Your task to perform on an android device: Clear the cart on costco. Add "bose soundlink" to the cart on costco Image 0: 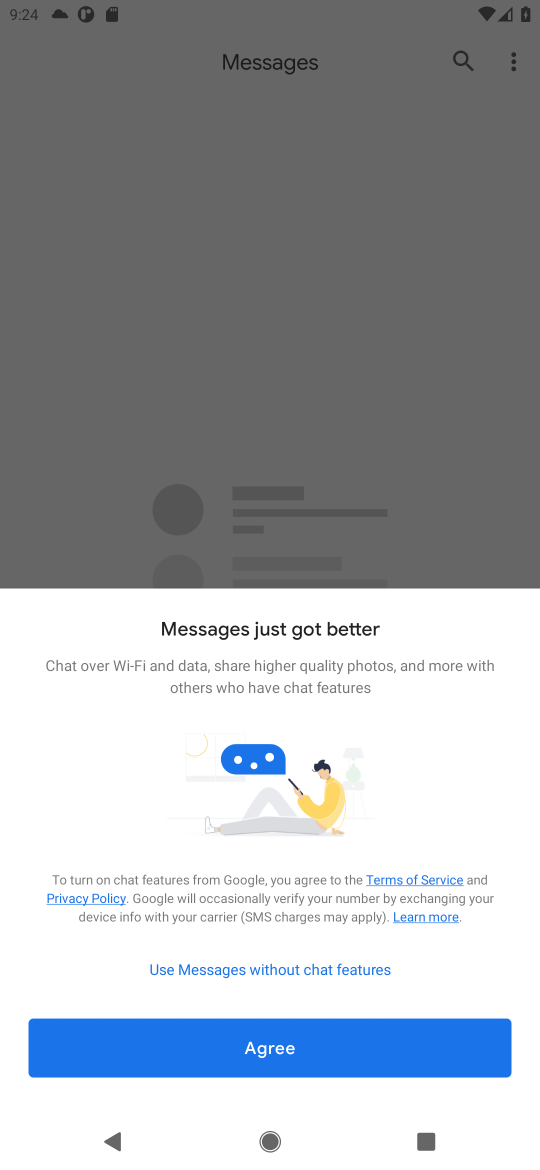
Step 0: press home button
Your task to perform on an android device: Clear the cart on costco. Add "bose soundlink" to the cart on costco Image 1: 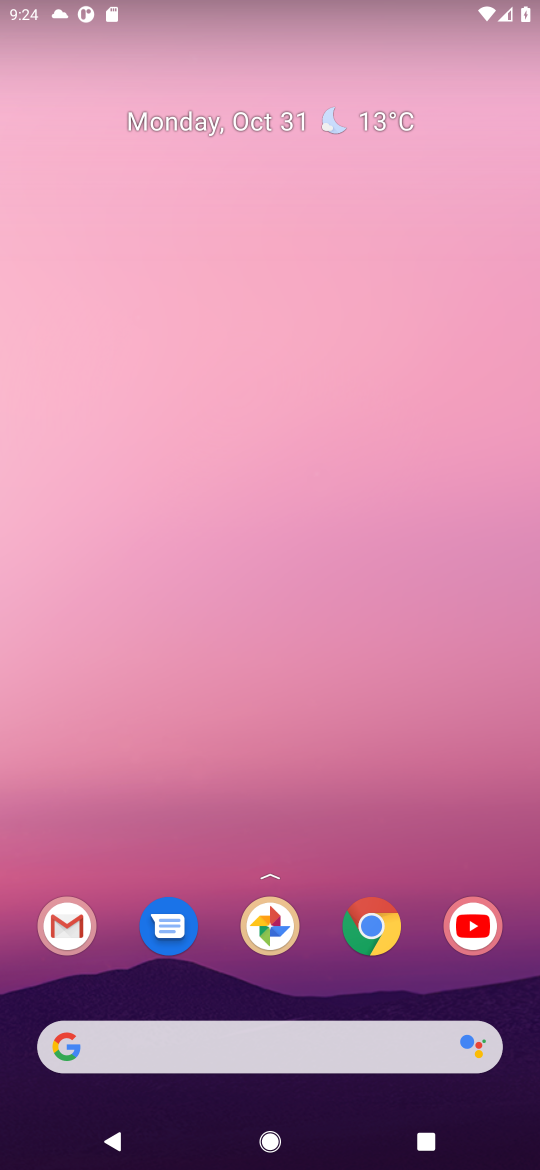
Step 1: click (368, 924)
Your task to perform on an android device: Clear the cart on costco. Add "bose soundlink" to the cart on costco Image 2: 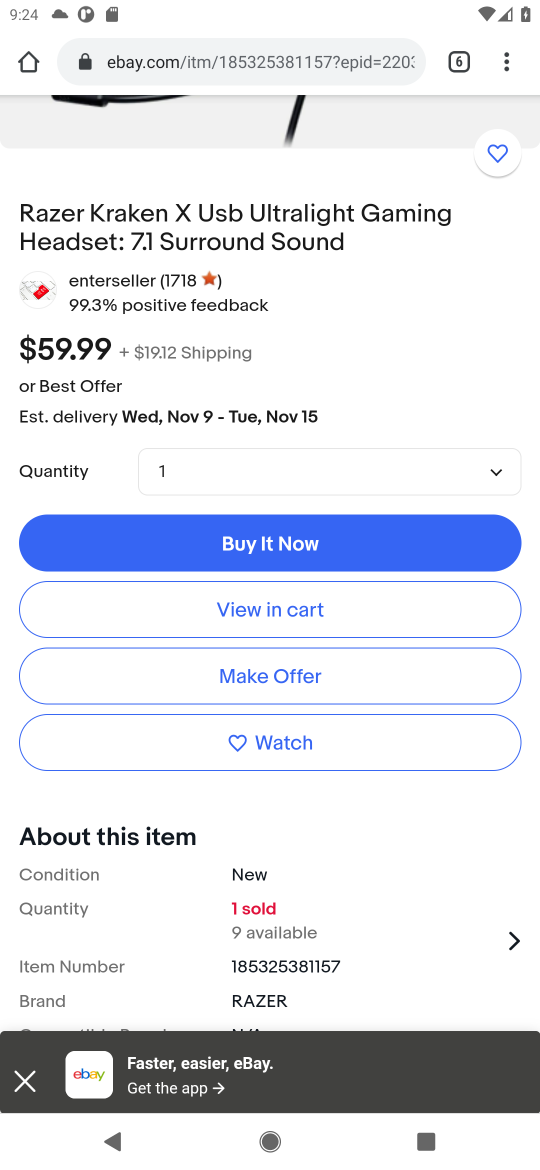
Step 2: click (458, 66)
Your task to perform on an android device: Clear the cart on costco. Add "bose soundlink" to the cart on costco Image 3: 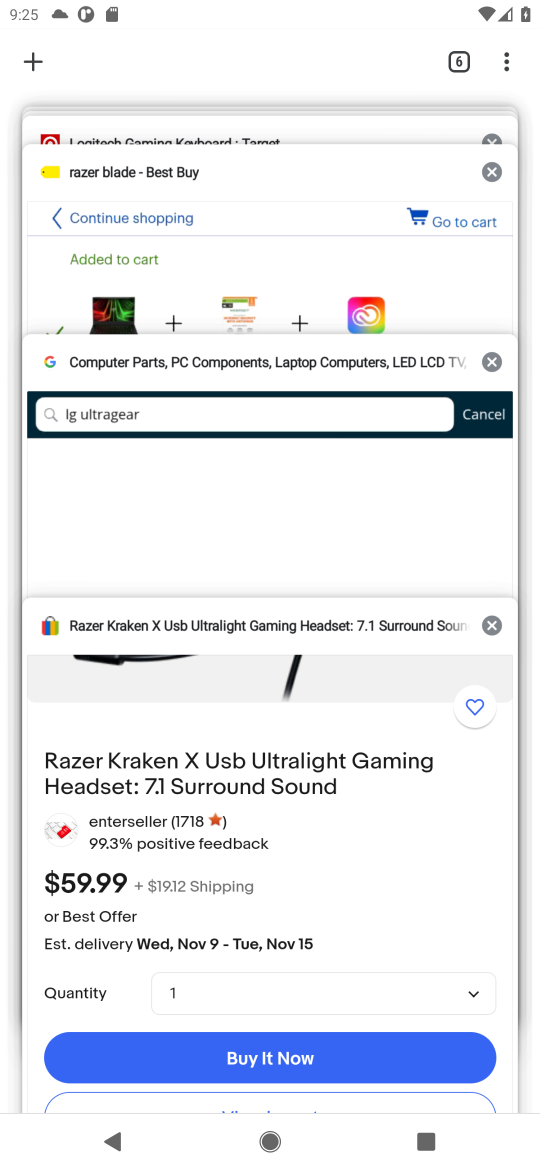
Step 3: drag from (242, 134) to (213, 626)
Your task to perform on an android device: Clear the cart on costco. Add "bose soundlink" to the cart on costco Image 4: 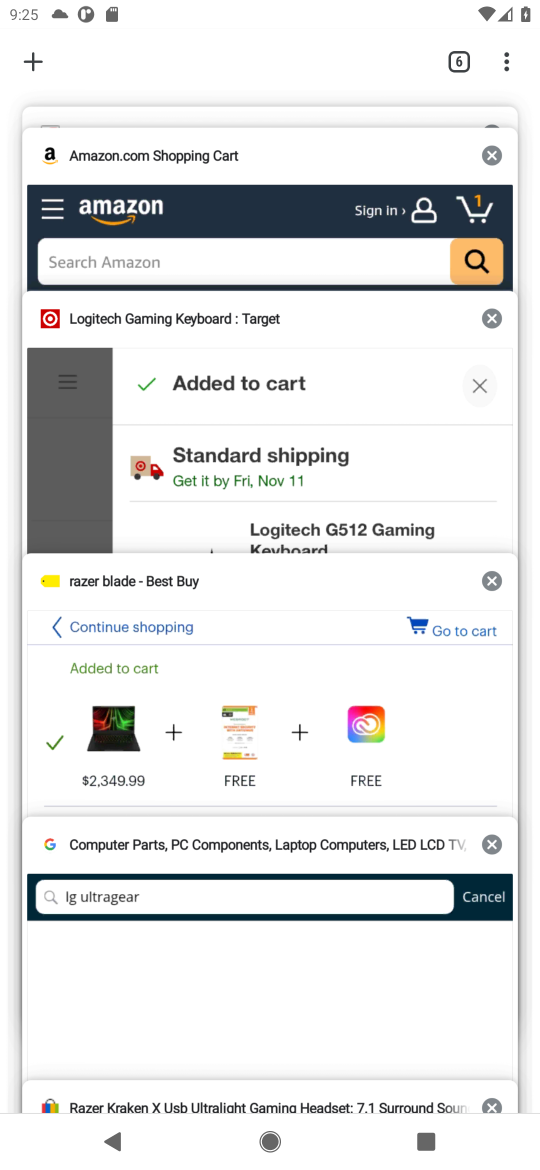
Step 4: drag from (278, 213) to (241, 584)
Your task to perform on an android device: Clear the cart on costco. Add "bose soundlink" to the cart on costco Image 5: 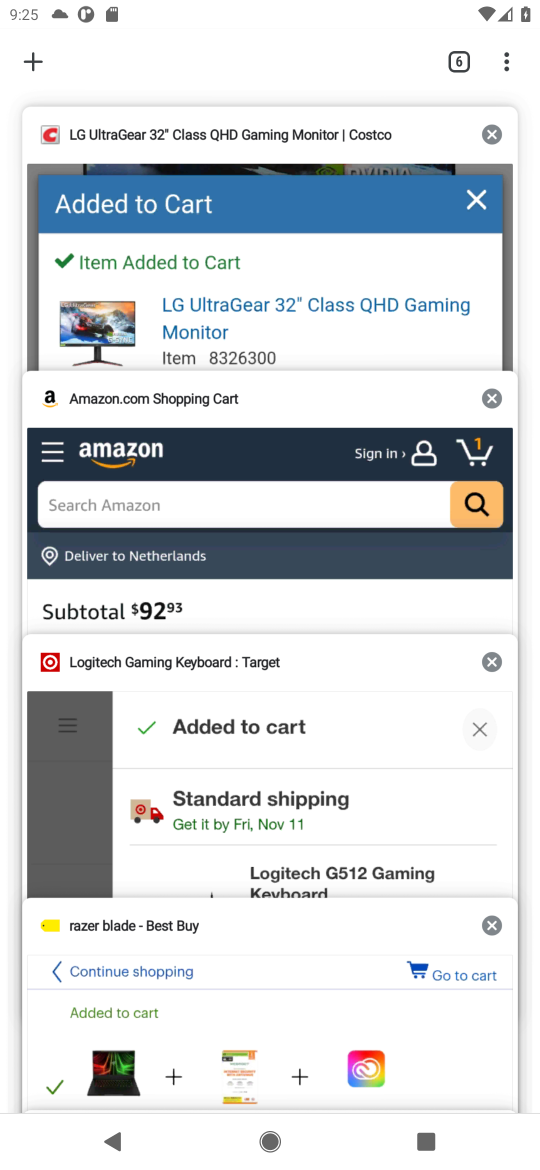
Step 5: click (290, 135)
Your task to perform on an android device: Clear the cart on costco. Add "bose soundlink" to the cart on costco Image 6: 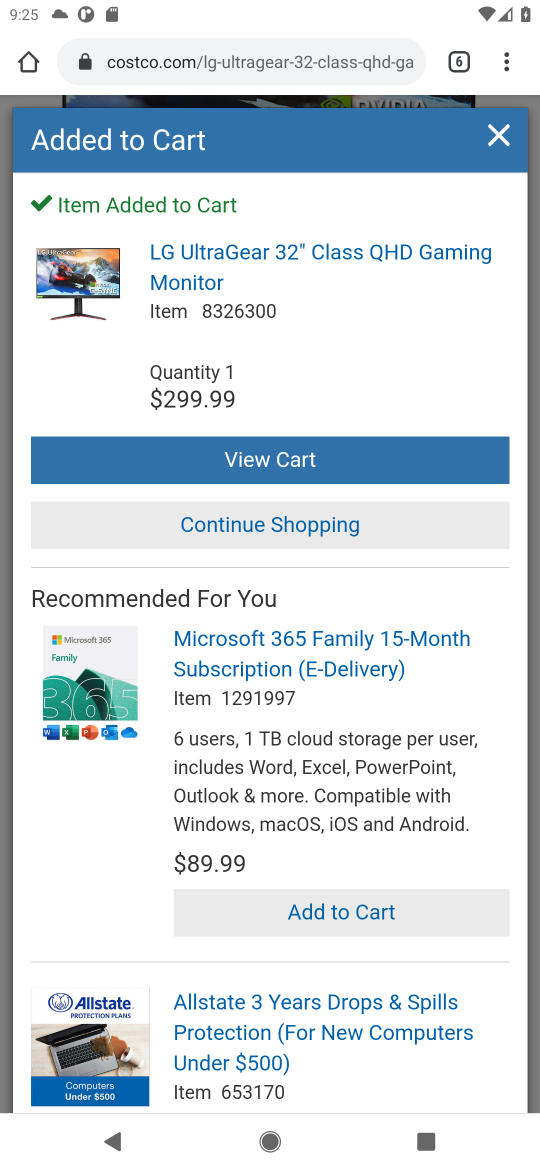
Step 6: click (506, 131)
Your task to perform on an android device: Clear the cart on costco. Add "bose soundlink" to the cart on costco Image 7: 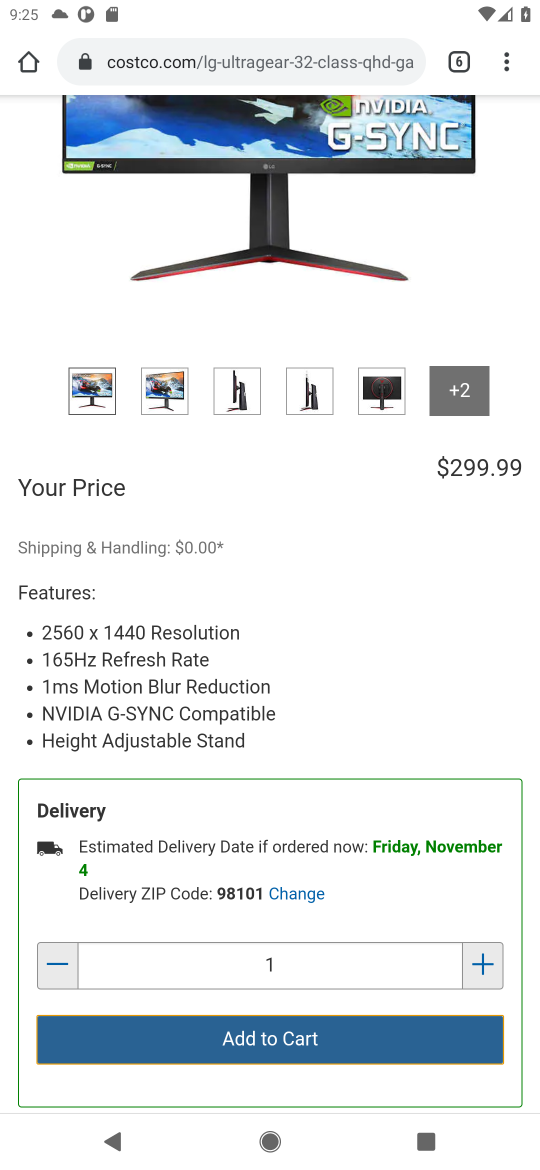
Step 7: drag from (417, 336) to (324, 1127)
Your task to perform on an android device: Clear the cart on costco. Add "bose soundlink" to the cart on costco Image 8: 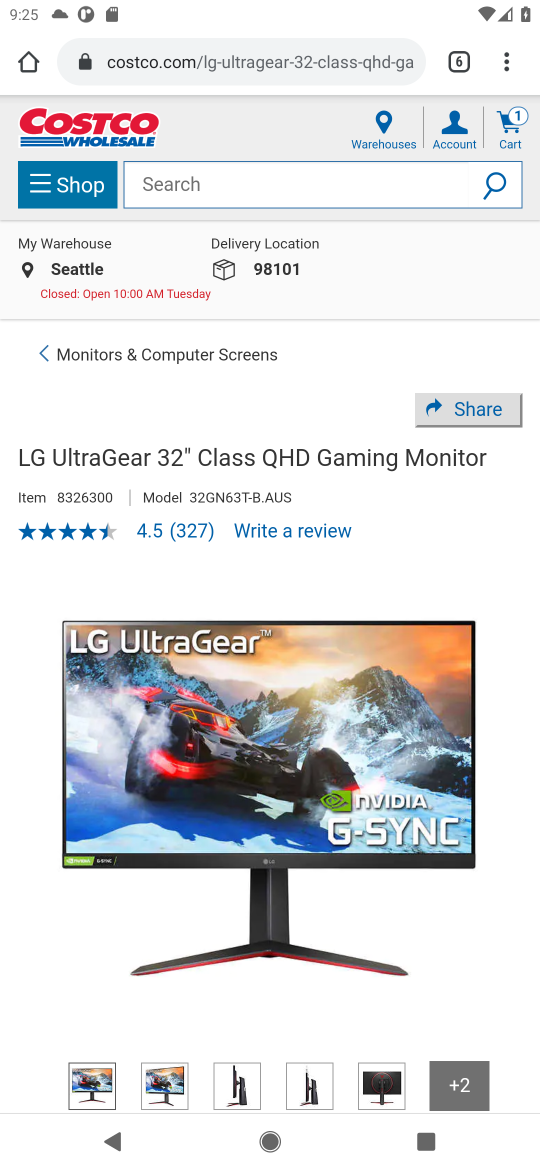
Step 8: click (512, 119)
Your task to perform on an android device: Clear the cart on costco. Add "bose soundlink" to the cart on costco Image 9: 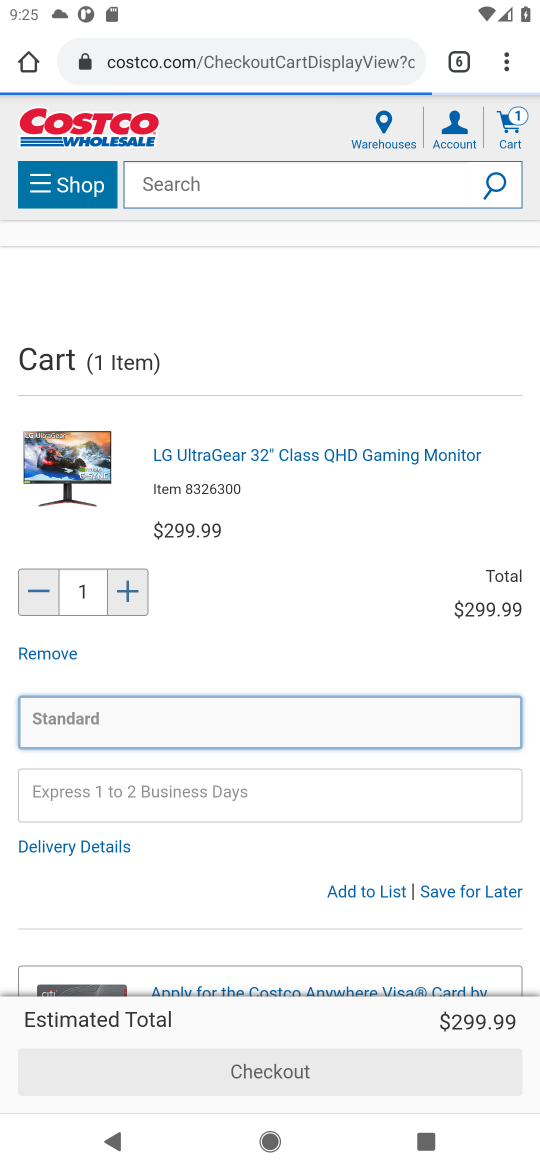
Step 9: click (363, 202)
Your task to perform on an android device: Clear the cart on costco. Add "bose soundlink" to the cart on costco Image 10: 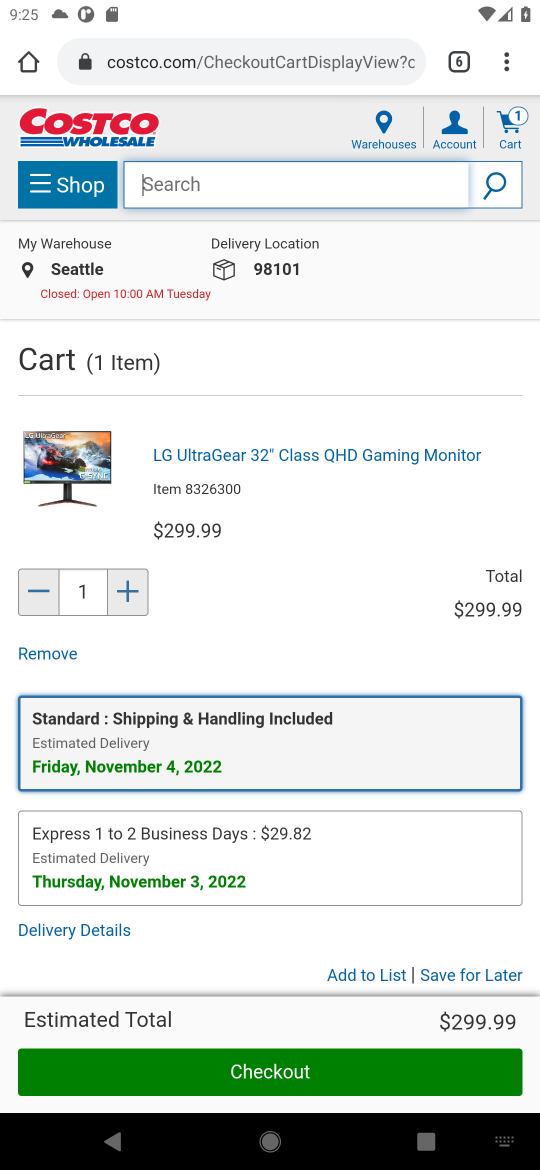
Step 10: type "bose soundlink"
Your task to perform on an android device: Clear the cart on costco. Add "bose soundlink" to the cart on costco Image 11: 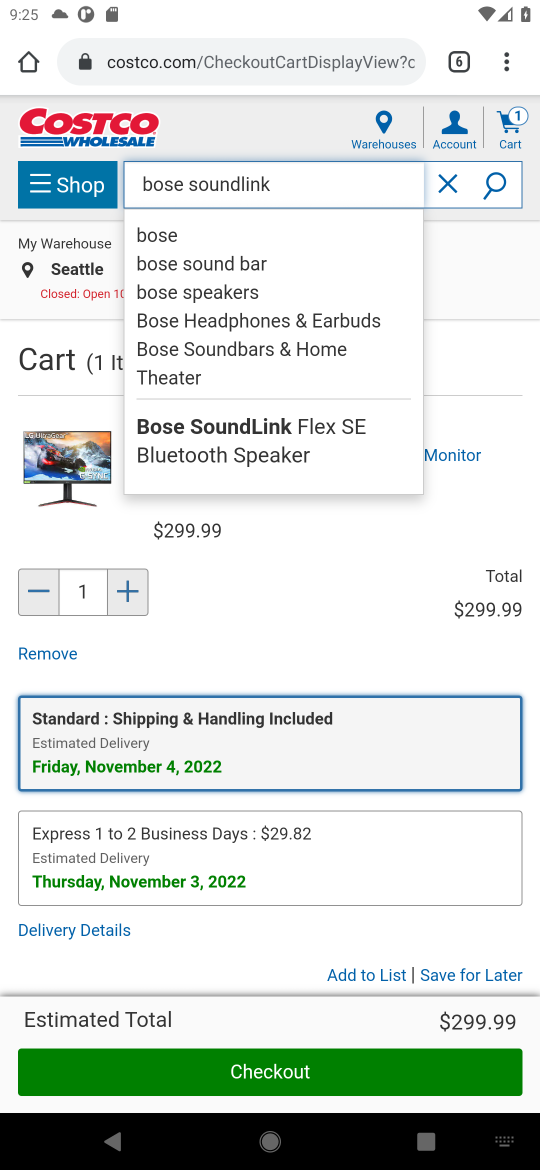
Step 11: click (270, 435)
Your task to perform on an android device: Clear the cart on costco. Add "bose soundlink" to the cart on costco Image 12: 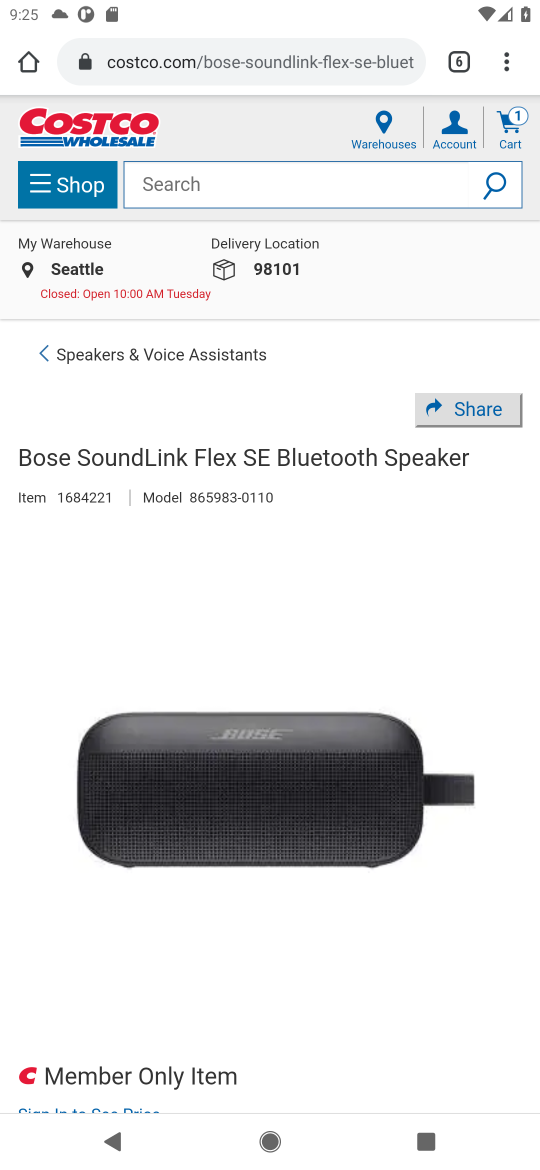
Step 12: click (510, 123)
Your task to perform on an android device: Clear the cart on costco. Add "bose soundlink" to the cart on costco Image 13: 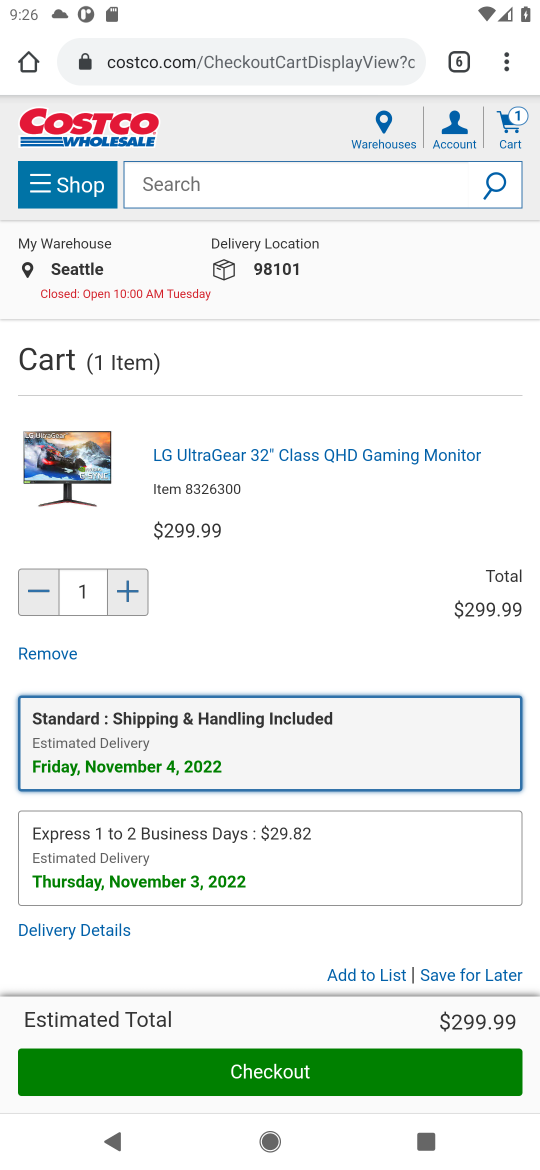
Step 13: click (58, 650)
Your task to perform on an android device: Clear the cart on costco. Add "bose soundlink" to the cart on costco Image 14: 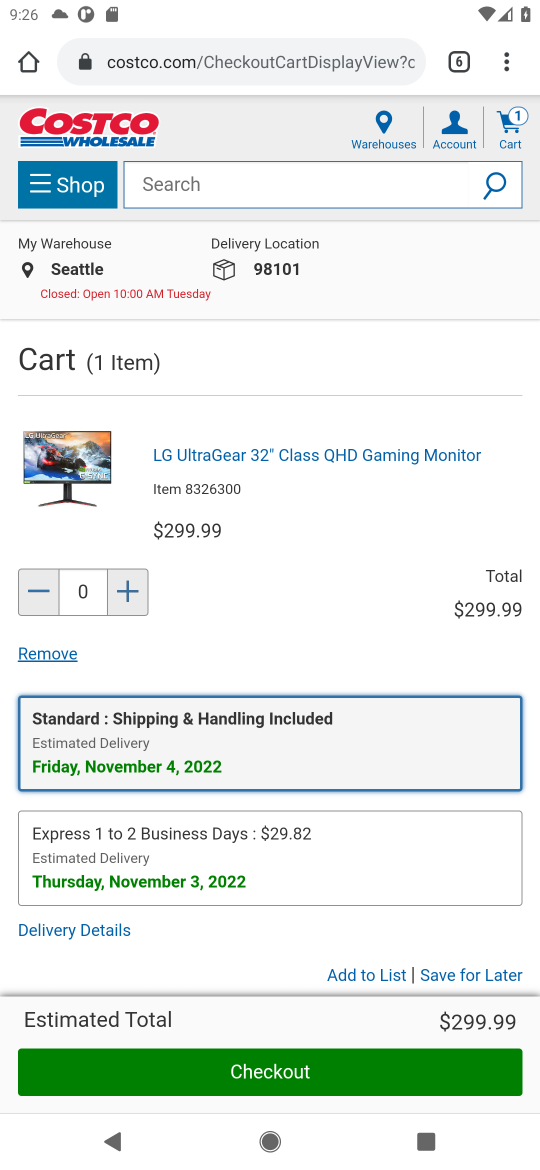
Step 14: click (48, 649)
Your task to perform on an android device: Clear the cart on costco. Add "bose soundlink" to the cart on costco Image 15: 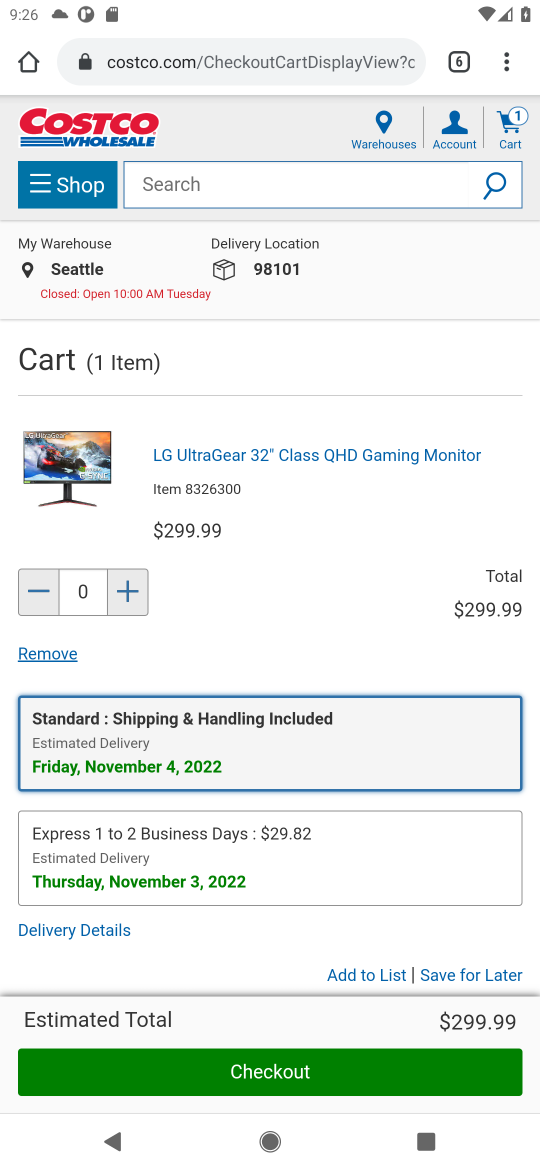
Step 15: click (48, 649)
Your task to perform on an android device: Clear the cart on costco. Add "bose soundlink" to the cart on costco Image 16: 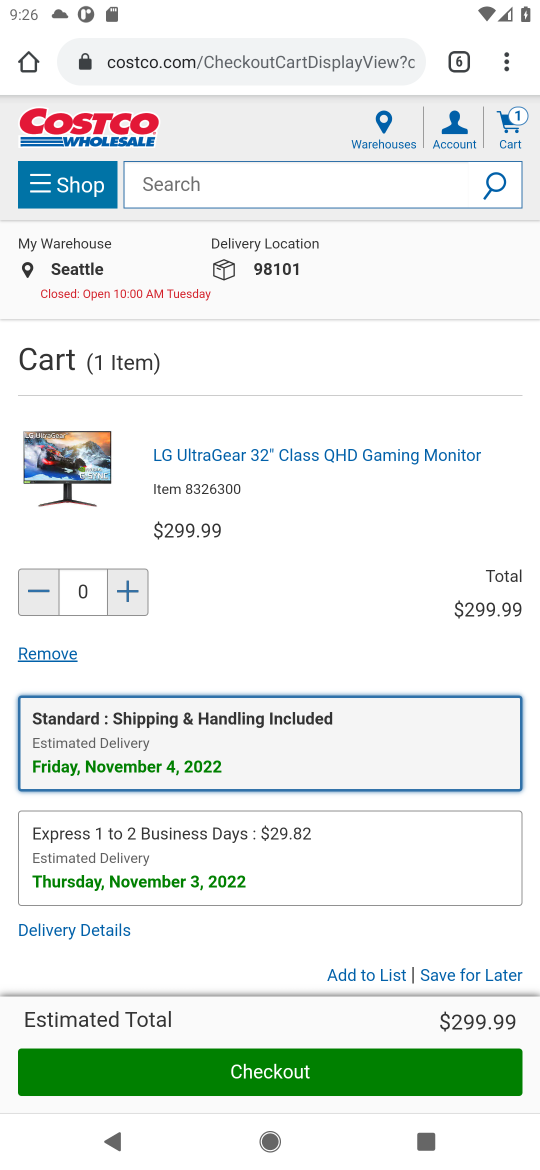
Step 16: click (48, 649)
Your task to perform on an android device: Clear the cart on costco. Add "bose soundlink" to the cart on costco Image 17: 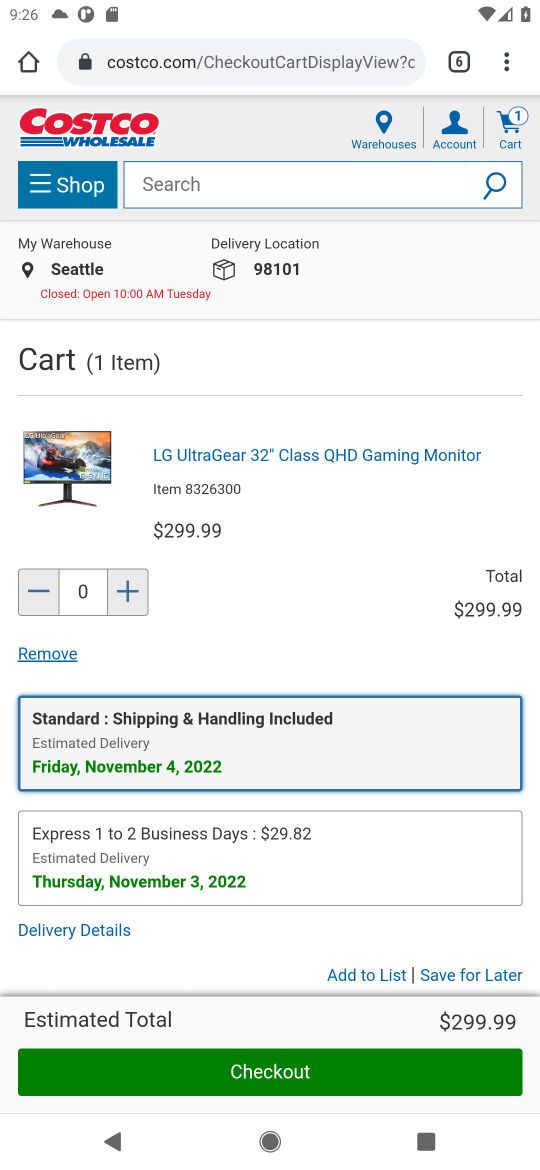
Step 17: click (48, 649)
Your task to perform on an android device: Clear the cart on costco. Add "bose soundlink" to the cart on costco Image 18: 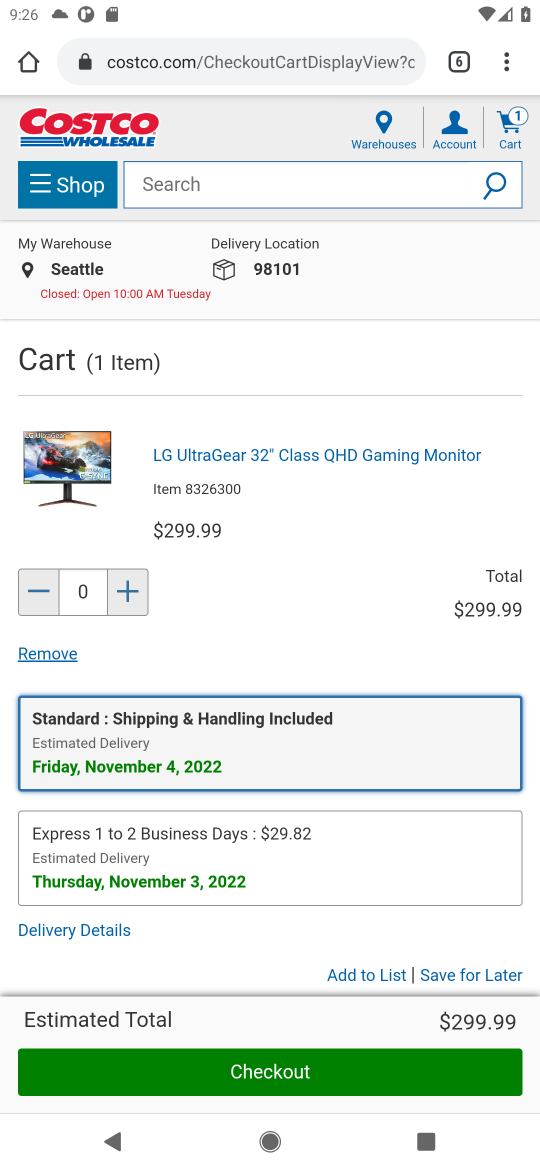
Step 18: click (48, 649)
Your task to perform on an android device: Clear the cart on costco. Add "bose soundlink" to the cart on costco Image 19: 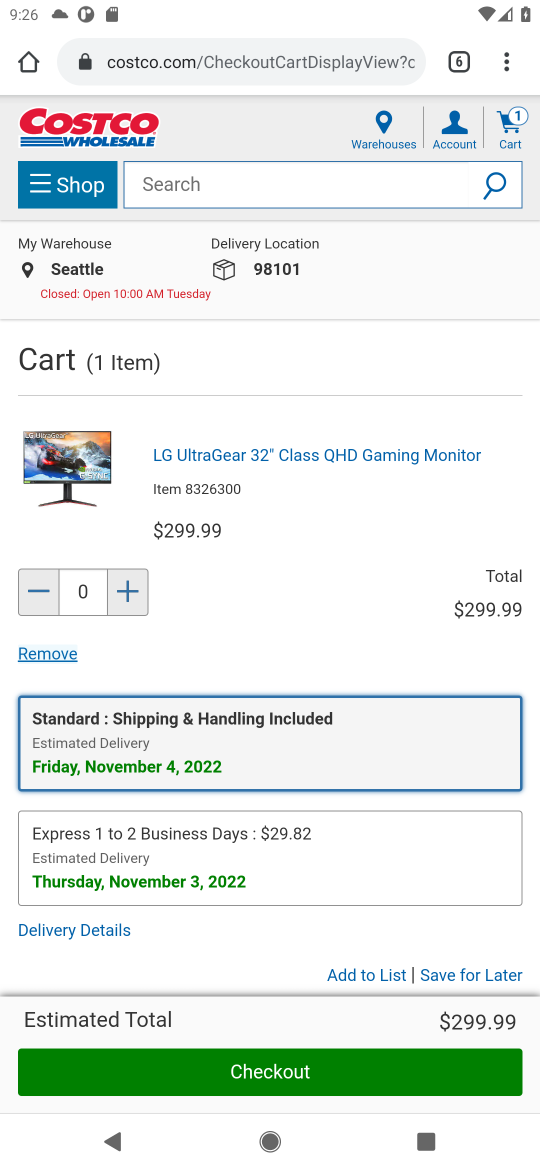
Step 19: click (48, 649)
Your task to perform on an android device: Clear the cart on costco. Add "bose soundlink" to the cart on costco Image 20: 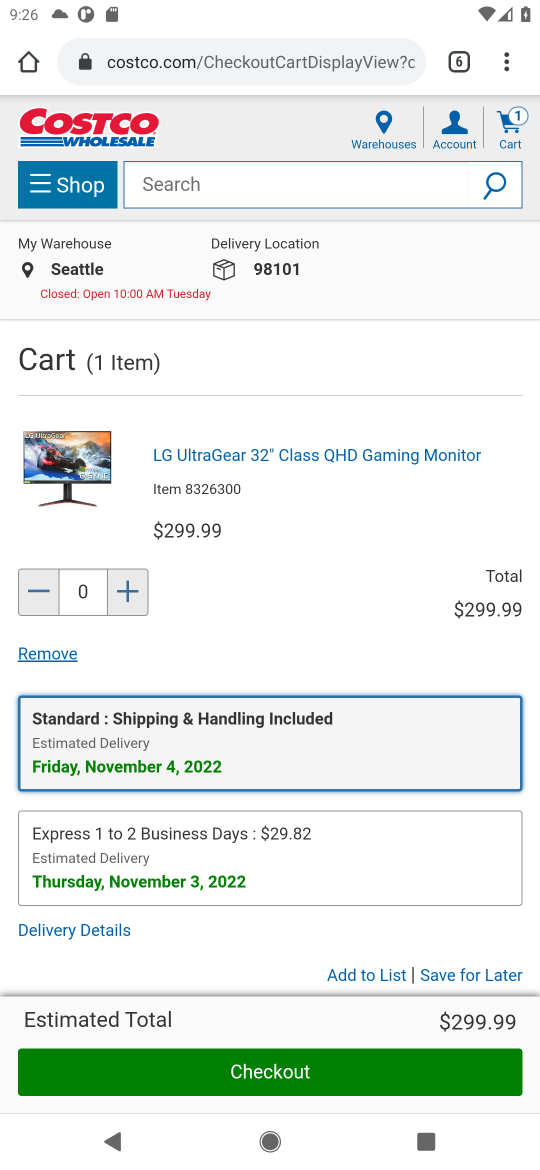
Step 20: drag from (368, 949) to (448, 483)
Your task to perform on an android device: Clear the cart on costco. Add "bose soundlink" to the cart on costco Image 21: 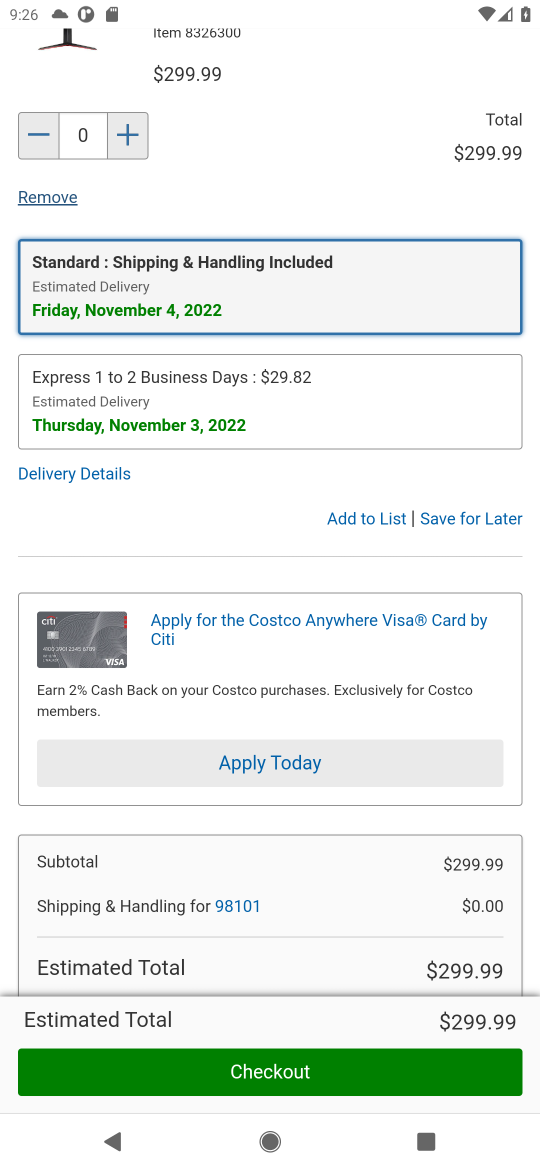
Step 21: click (55, 195)
Your task to perform on an android device: Clear the cart on costco. Add "bose soundlink" to the cart on costco Image 22: 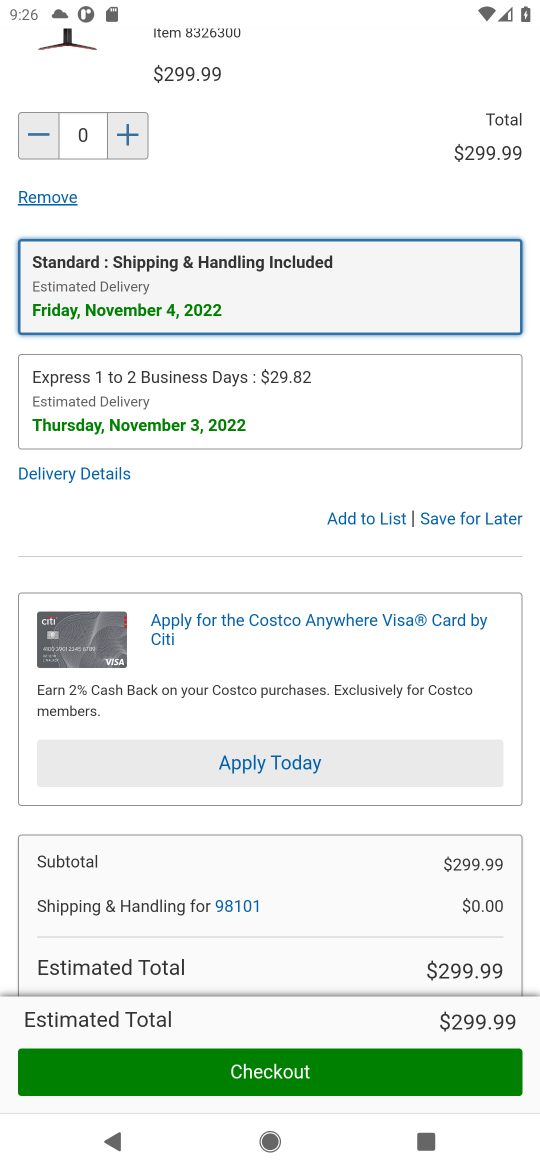
Step 22: task complete